Your task to perform on an android device: open app "Adobe Acrobat Reader" (install if not already installed) and go to login screen Image 0: 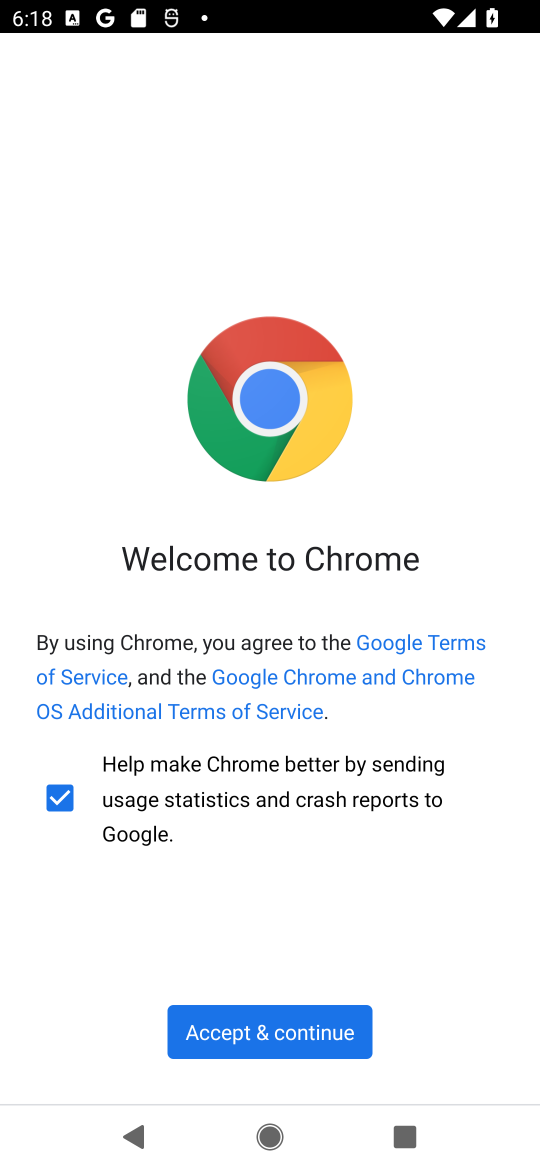
Step 0: press home button
Your task to perform on an android device: open app "Adobe Acrobat Reader" (install if not already installed) and go to login screen Image 1: 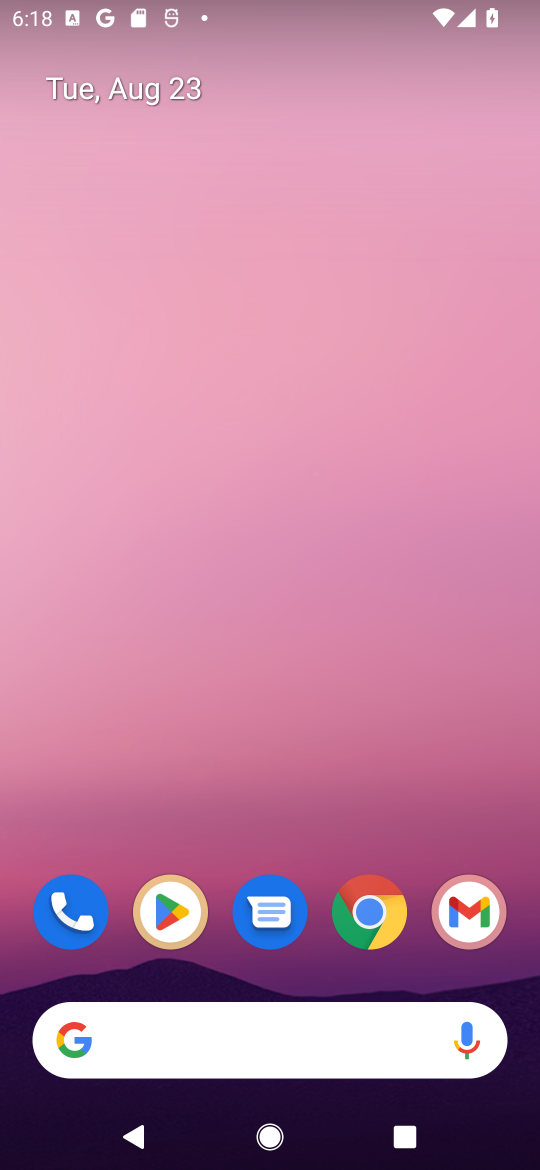
Step 1: click (159, 915)
Your task to perform on an android device: open app "Adobe Acrobat Reader" (install if not already installed) and go to login screen Image 2: 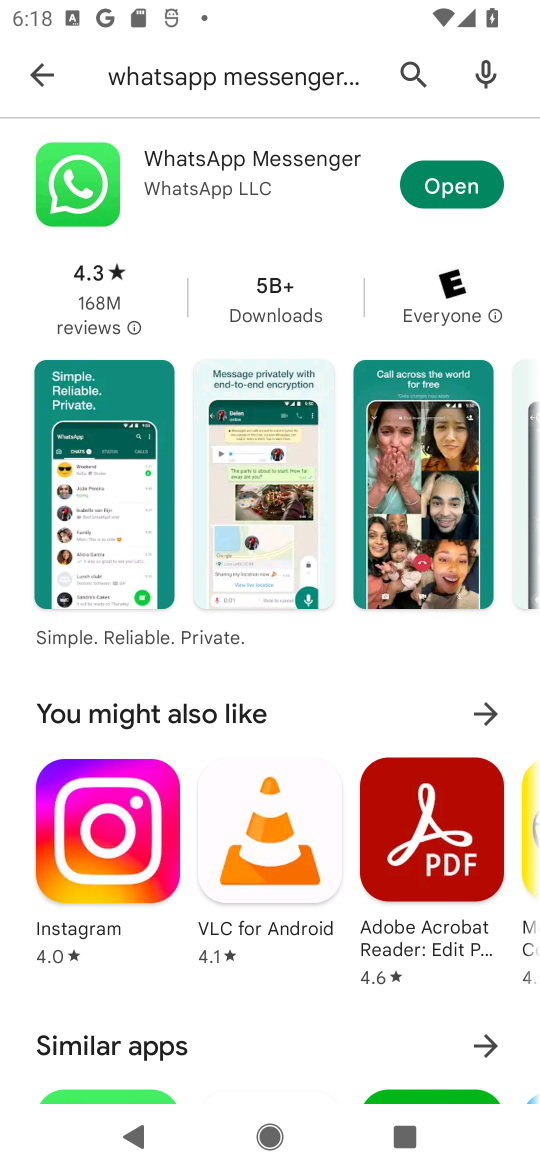
Step 2: click (46, 83)
Your task to perform on an android device: open app "Adobe Acrobat Reader" (install if not already installed) and go to login screen Image 3: 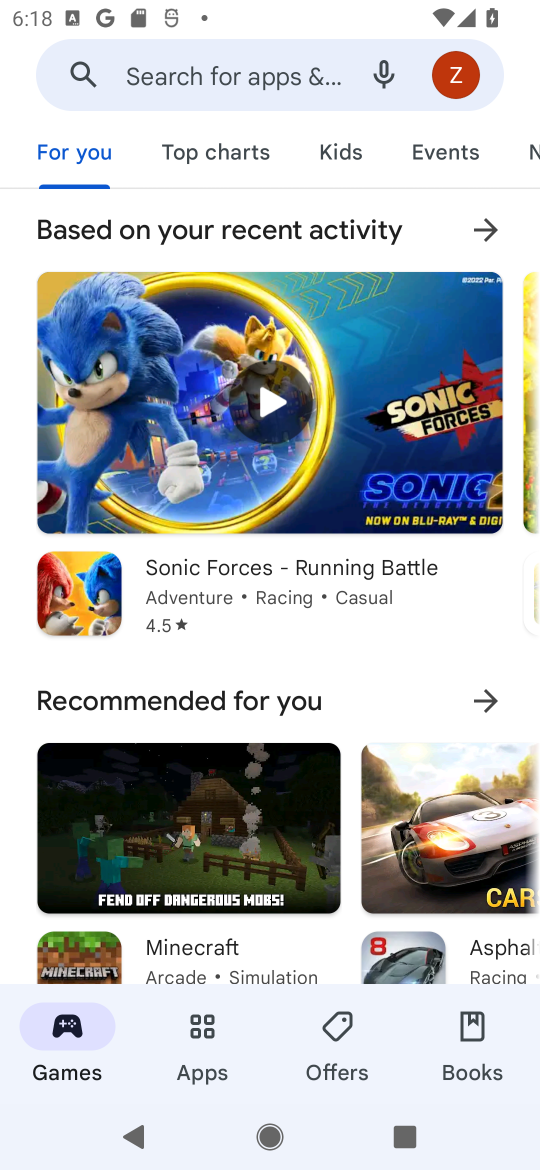
Step 3: click (218, 68)
Your task to perform on an android device: open app "Adobe Acrobat Reader" (install if not already installed) and go to login screen Image 4: 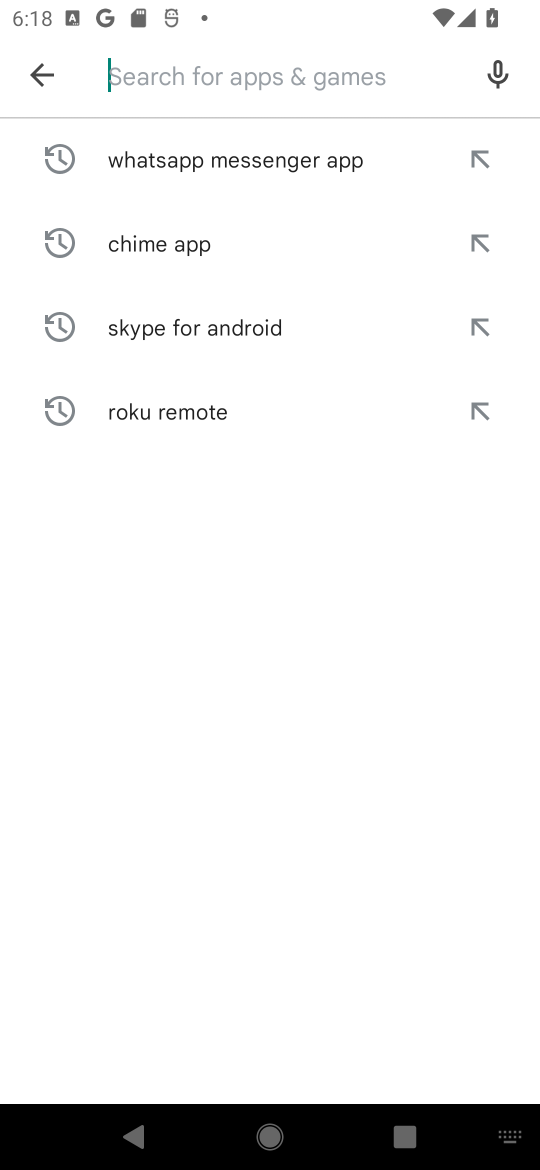
Step 4: type "Adobe Acrobat Reader "
Your task to perform on an android device: open app "Adobe Acrobat Reader" (install if not already installed) and go to login screen Image 5: 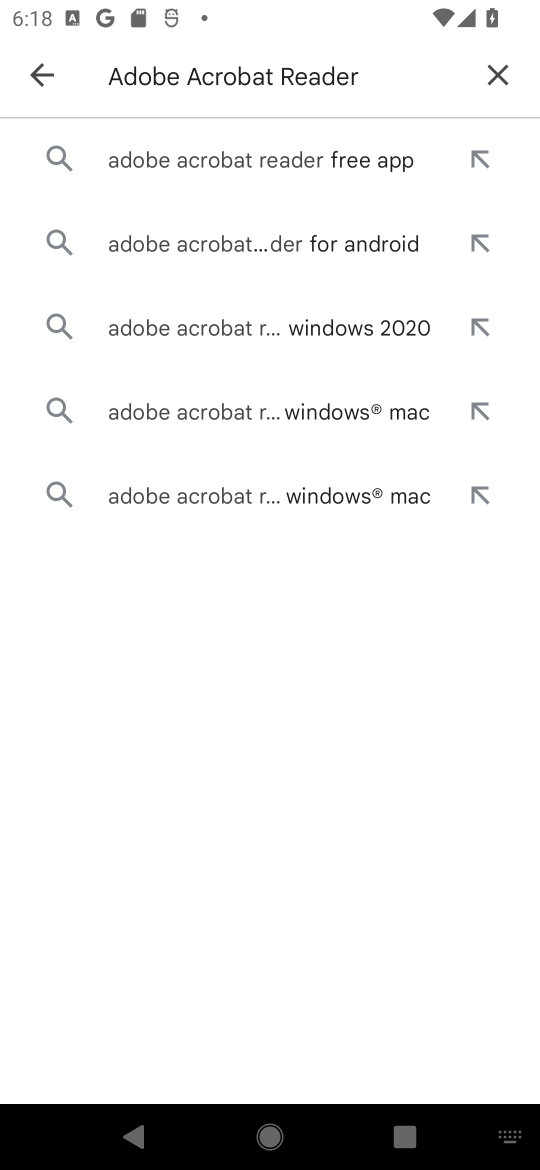
Step 5: click (264, 165)
Your task to perform on an android device: open app "Adobe Acrobat Reader" (install if not already installed) and go to login screen Image 6: 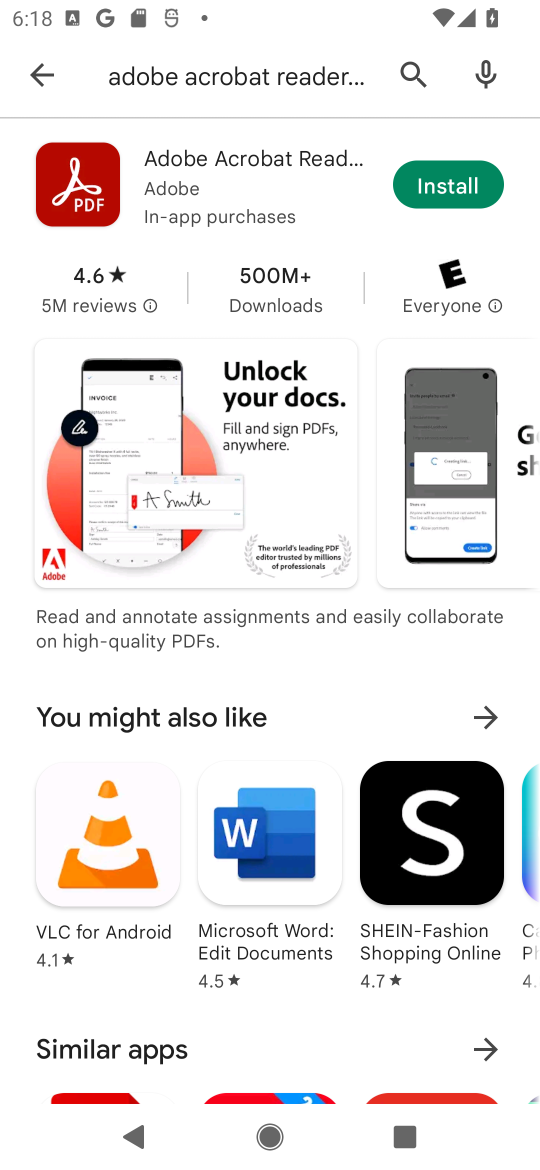
Step 6: click (440, 187)
Your task to perform on an android device: open app "Adobe Acrobat Reader" (install if not already installed) and go to login screen Image 7: 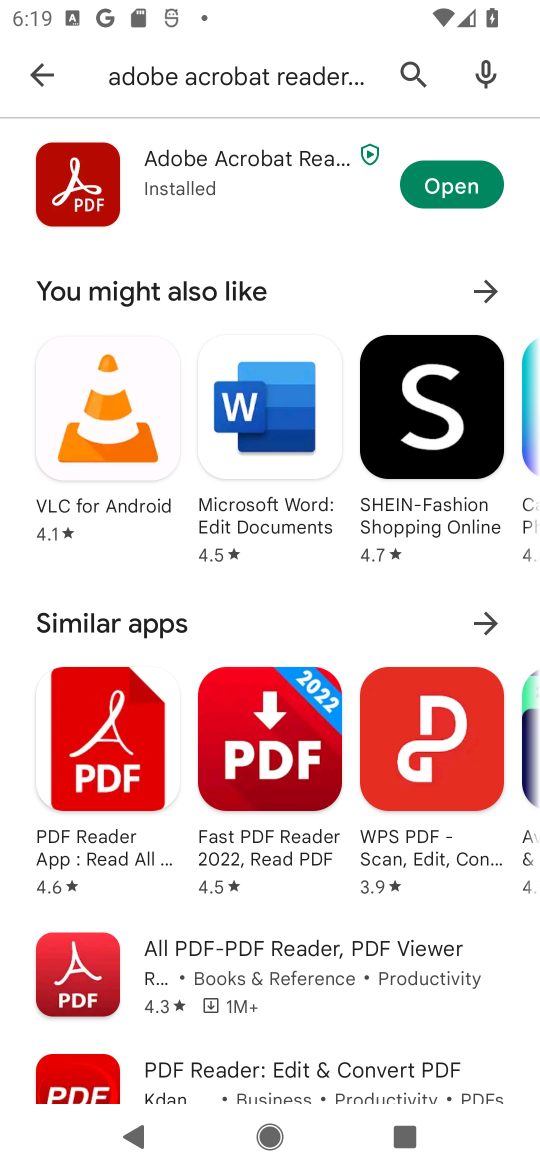
Step 7: click (404, 181)
Your task to perform on an android device: open app "Adobe Acrobat Reader" (install if not already installed) and go to login screen Image 8: 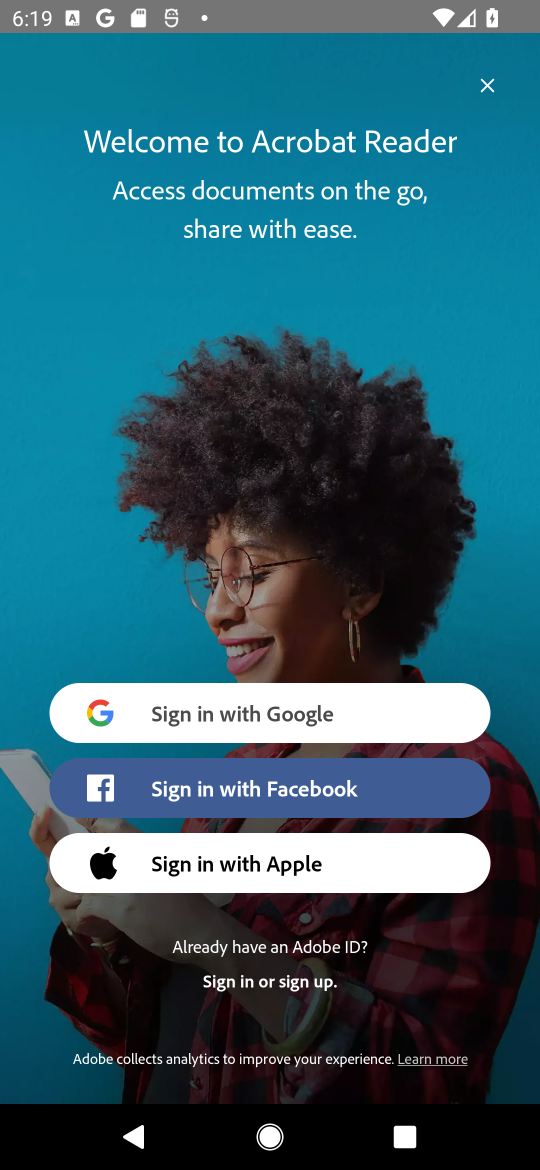
Step 8: task complete